Your task to perform on an android device: set the timer Image 0: 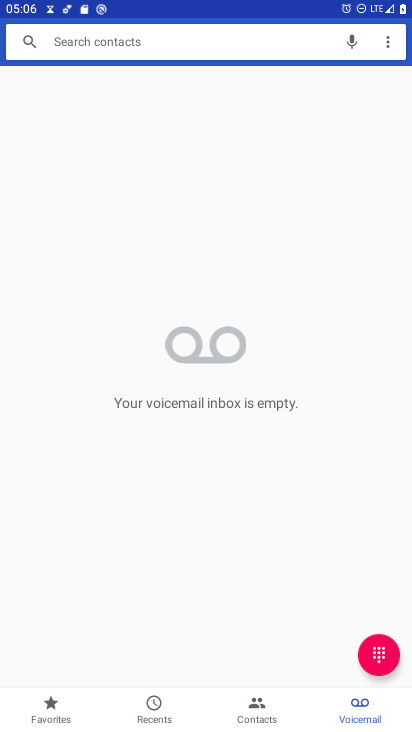
Step 0: press home button
Your task to perform on an android device: set the timer Image 1: 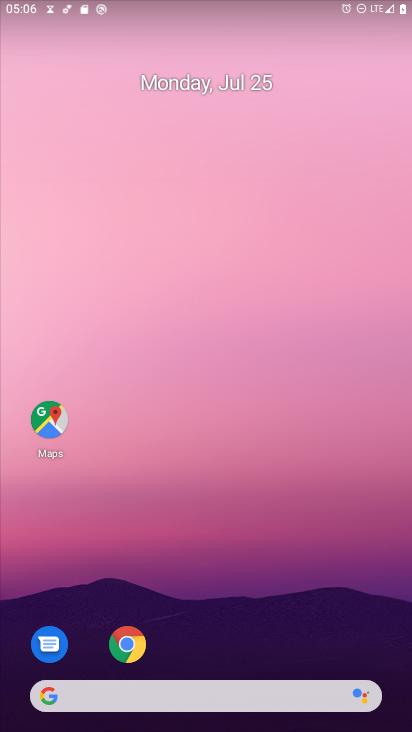
Step 1: drag from (305, 598) to (251, 137)
Your task to perform on an android device: set the timer Image 2: 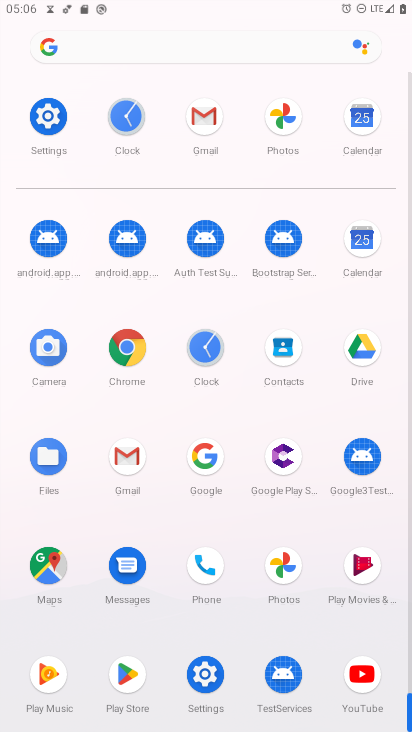
Step 2: click (124, 110)
Your task to perform on an android device: set the timer Image 3: 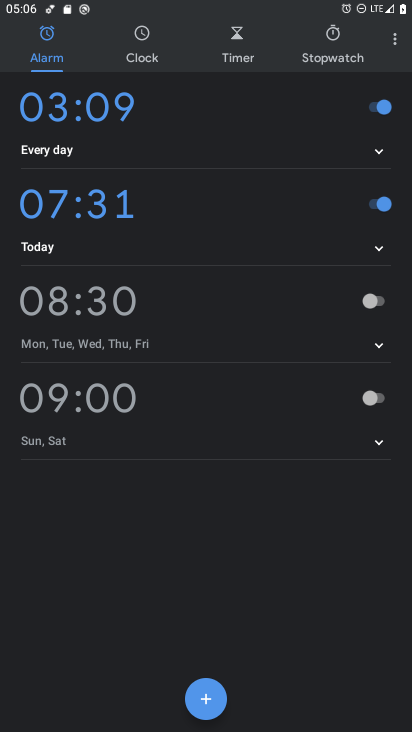
Step 3: click (237, 48)
Your task to perform on an android device: set the timer Image 4: 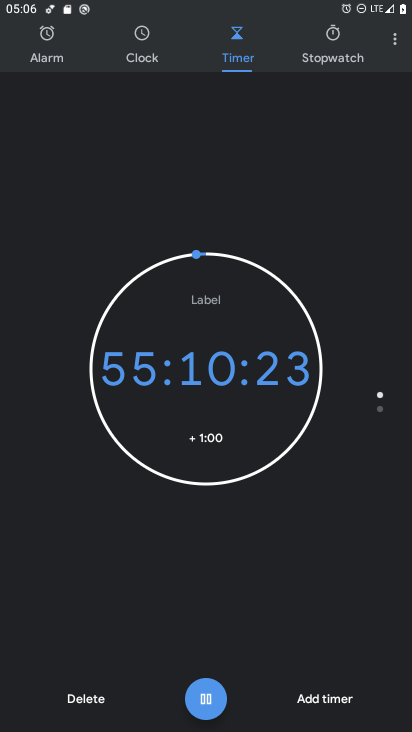
Step 4: task complete